Your task to perform on an android device: Is it going to rain today? Image 0: 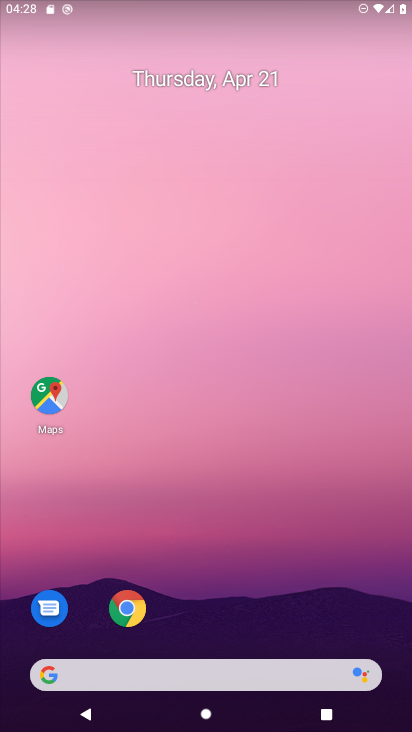
Step 0: drag from (260, 436) to (268, 200)
Your task to perform on an android device: Is it going to rain today? Image 1: 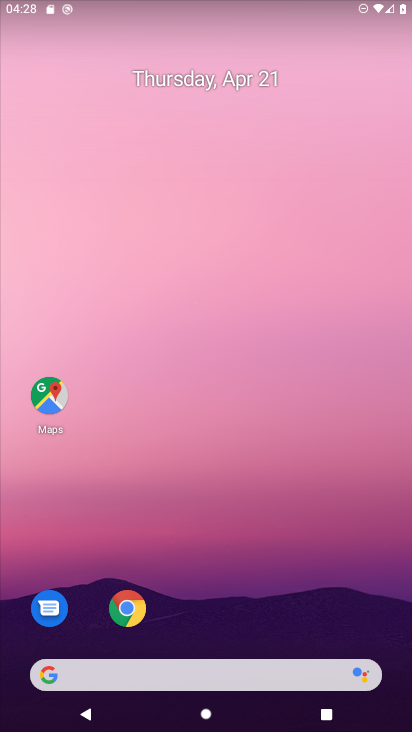
Step 1: drag from (224, 621) to (263, 300)
Your task to perform on an android device: Is it going to rain today? Image 2: 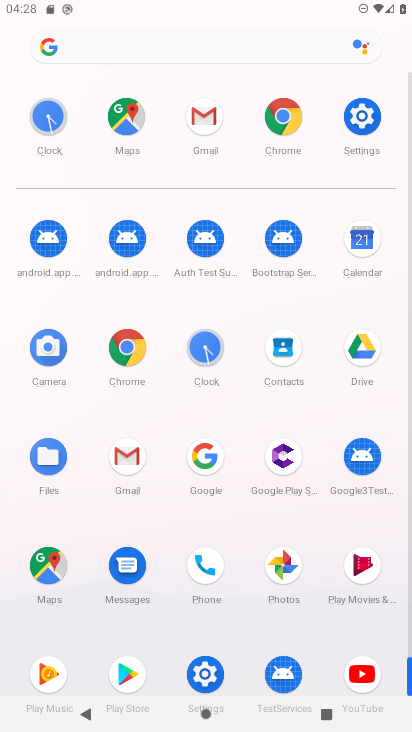
Step 2: click (120, 335)
Your task to perform on an android device: Is it going to rain today? Image 3: 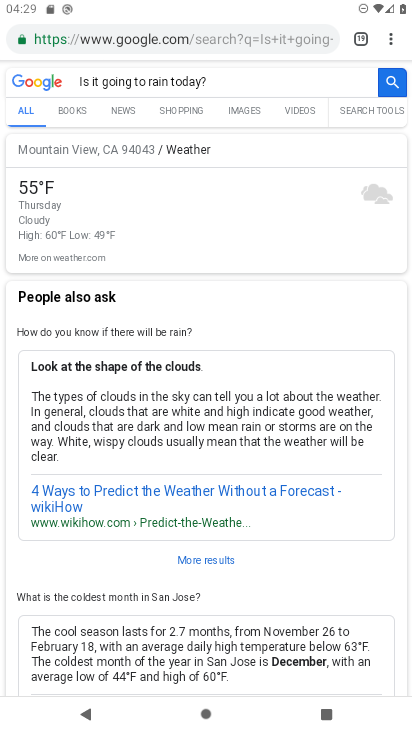
Step 3: task complete